Your task to perform on an android device: show emergency info Image 0: 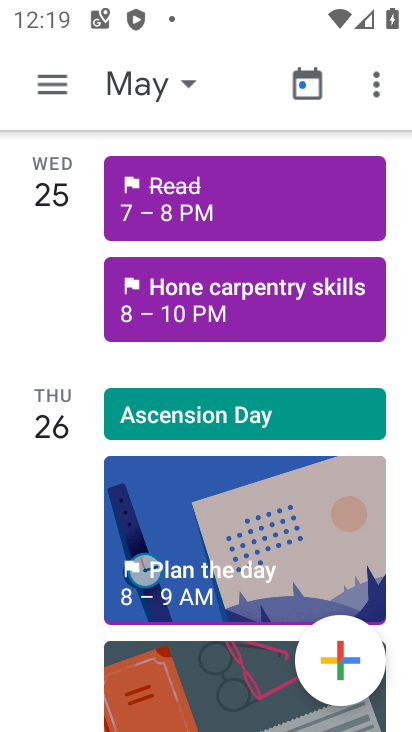
Step 0: click (204, 592)
Your task to perform on an android device: show emergency info Image 1: 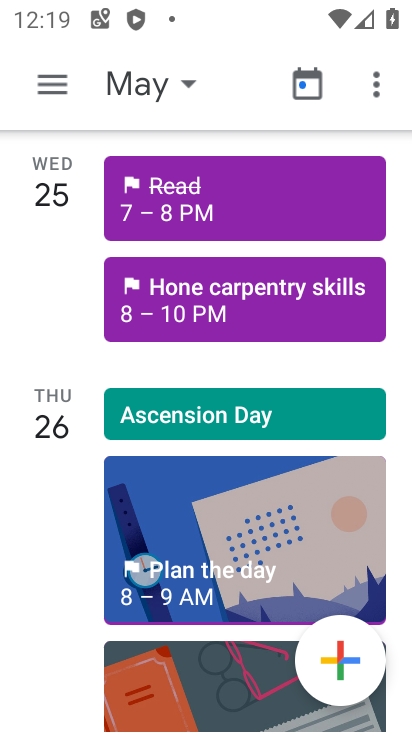
Step 1: press home button
Your task to perform on an android device: show emergency info Image 2: 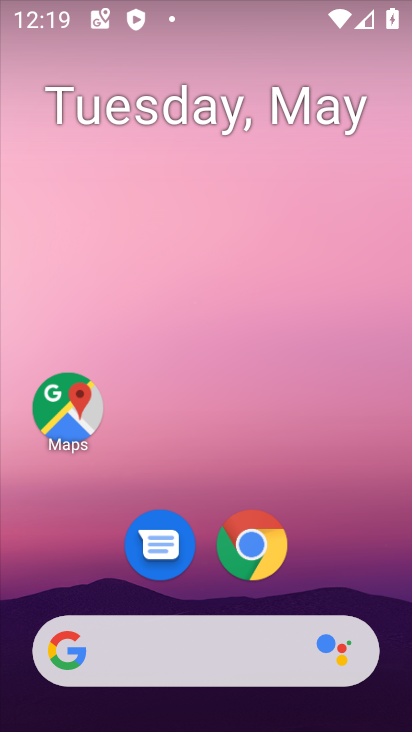
Step 2: drag from (213, 598) to (215, 10)
Your task to perform on an android device: show emergency info Image 3: 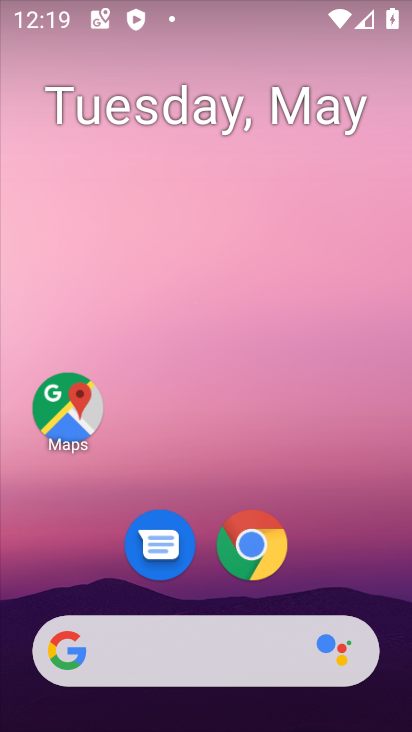
Step 3: drag from (212, 595) to (191, 144)
Your task to perform on an android device: show emergency info Image 4: 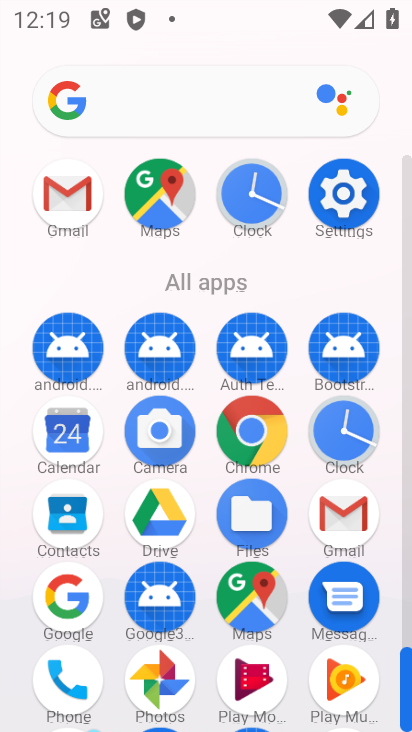
Step 4: click (329, 191)
Your task to perform on an android device: show emergency info Image 5: 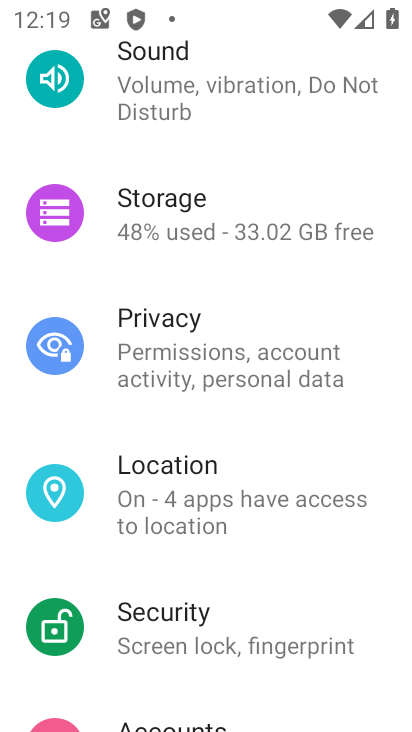
Step 5: drag from (168, 666) to (222, 220)
Your task to perform on an android device: show emergency info Image 6: 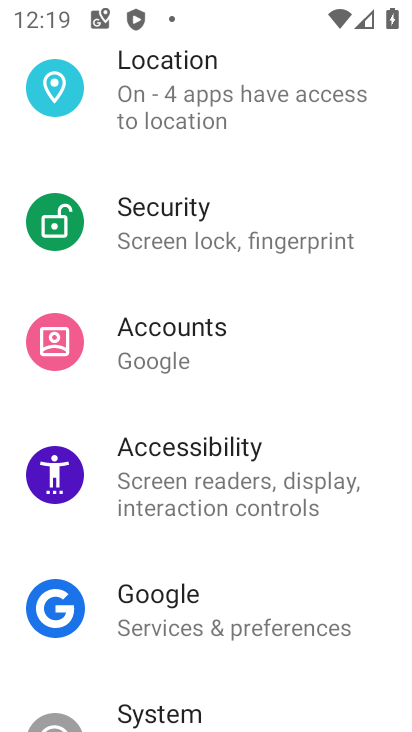
Step 6: drag from (101, 664) to (182, 234)
Your task to perform on an android device: show emergency info Image 7: 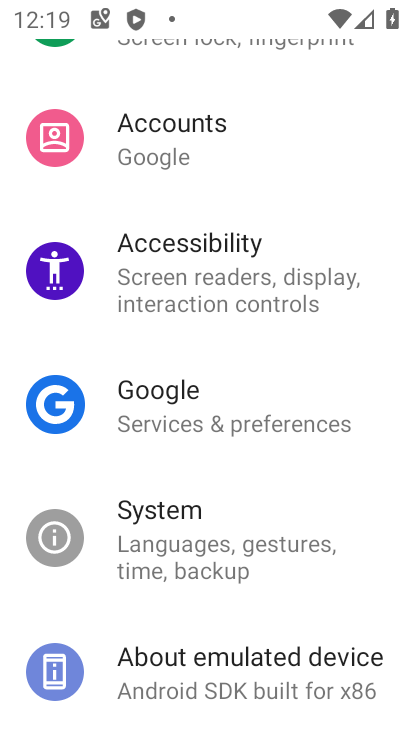
Step 7: drag from (114, 644) to (187, 207)
Your task to perform on an android device: show emergency info Image 8: 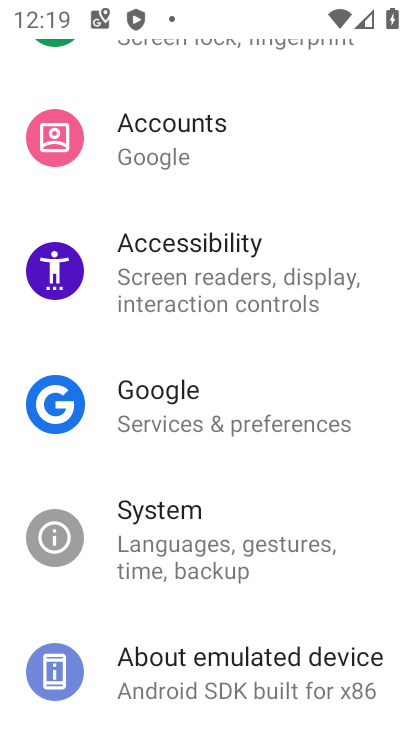
Step 8: click (145, 676)
Your task to perform on an android device: show emergency info Image 9: 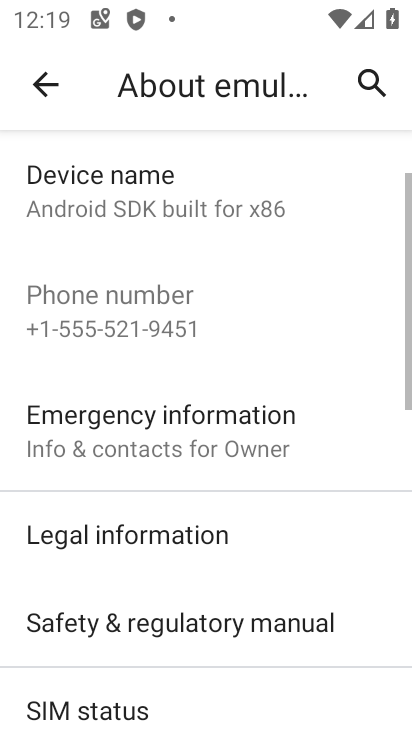
Step 9: drag from (145, 676) to (227, 289)
Your task to perform on an android device: show emergency info Image 10: 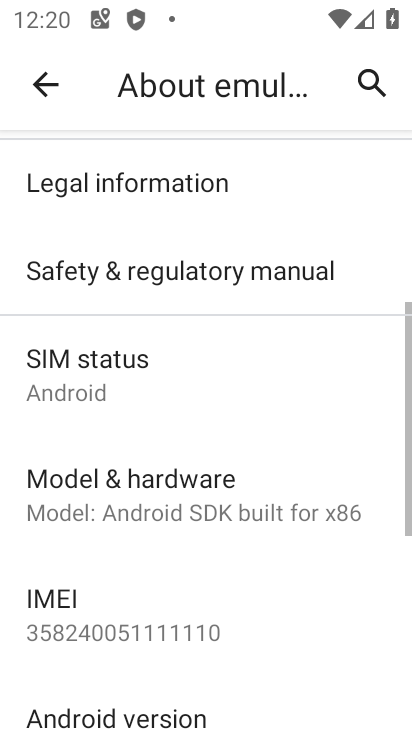
Step 10: click (194, 285)
Your task to perform on an android device: show emergency info Image 11: 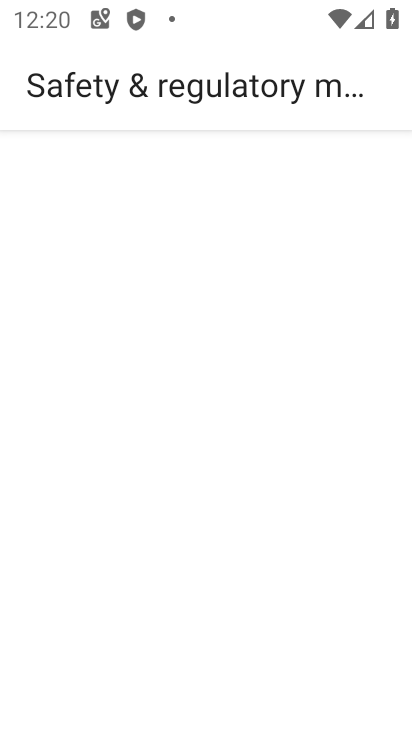
Step 11: press back button
Your task to perform on an android device: show emergency info Image 12: 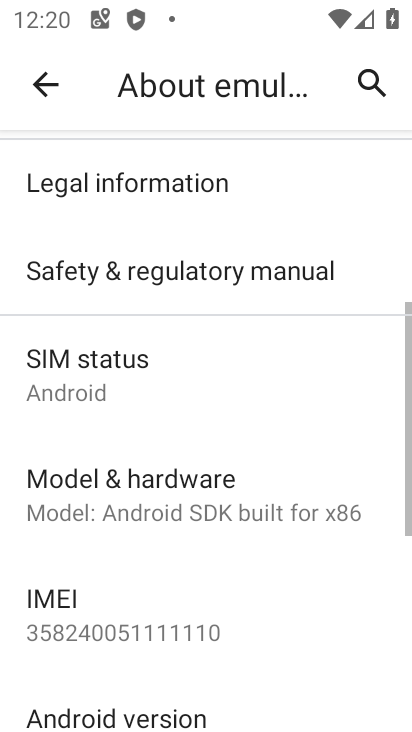
Step 12: drag from (197, 218) to (215, 547)
Your task to perform on an android device: show emergency info Image 13: 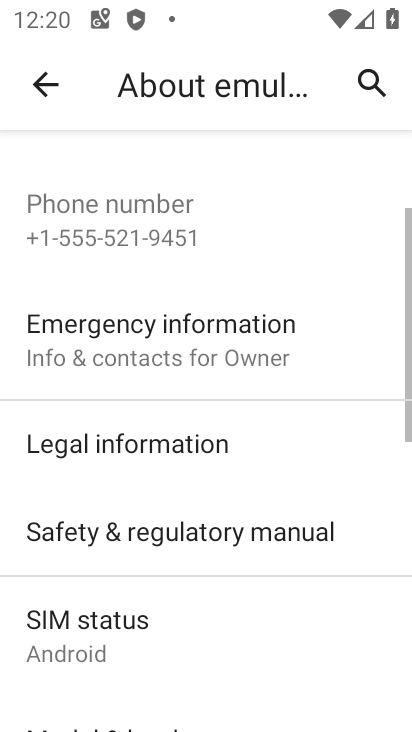
Step 13: click (126, 339)
Your task to perform on an android device: show emergency info Image 14: 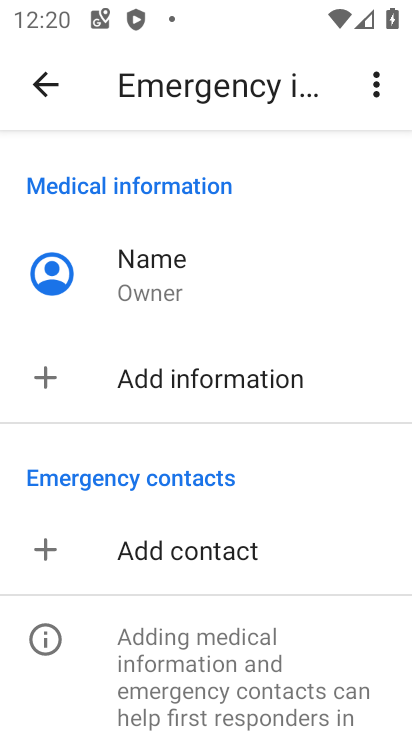
Step 14: task complete